Your task to perform on an android device: visit the assistant section in the google photos Image 0: 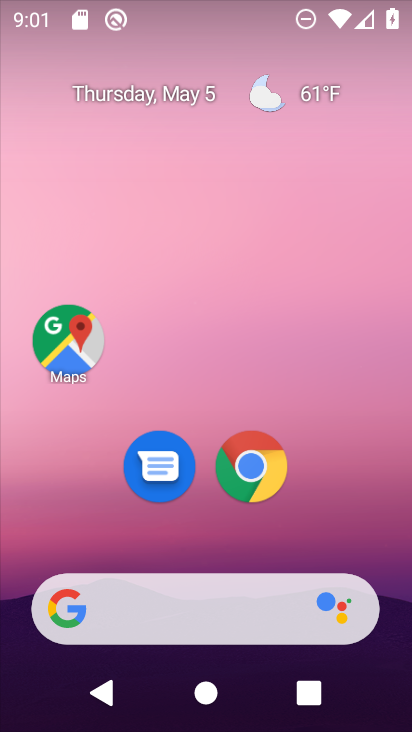
Step 0: drag from (190, 601) to (222, 82)
Your task to perform on an android device: visit the assistant section in the google photos Image 1: 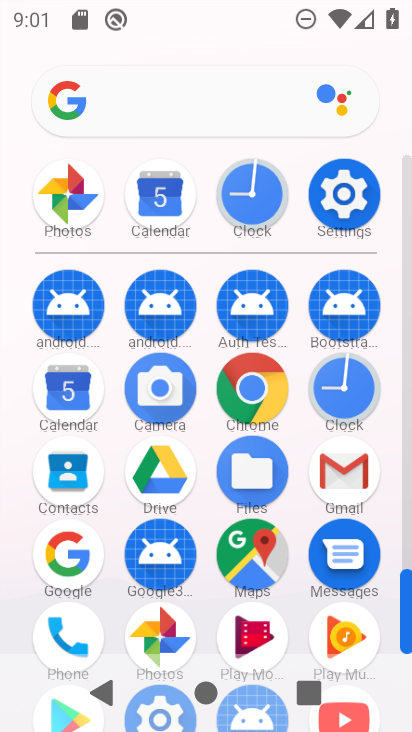
Step 1: click (163, 644)
Your task to perform on an android device: visit the assistant section in the google photos Image 2: 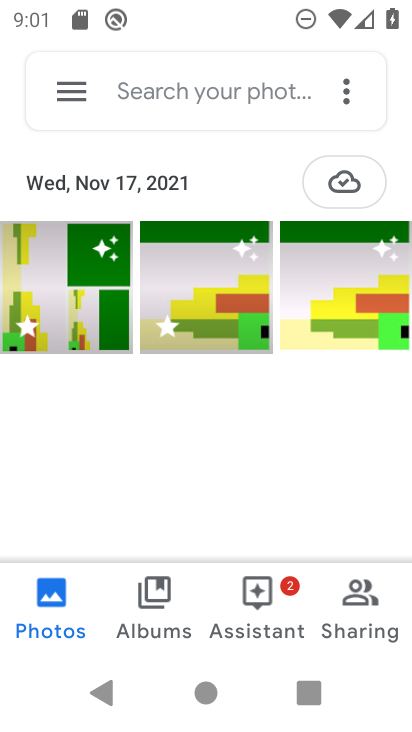
Step 2: click (264, 595)
Your task to perform on an android device: visit the assistant section in the google photos Image 3: 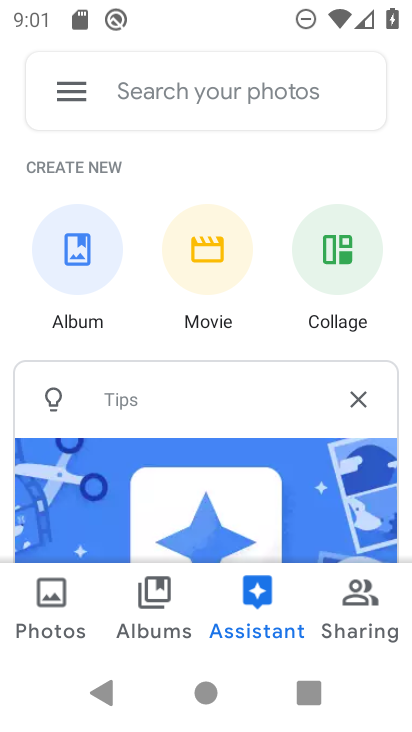
Step 3: task complete